Your task to perform on an android device: open a new tab in the chrome app Image 0: 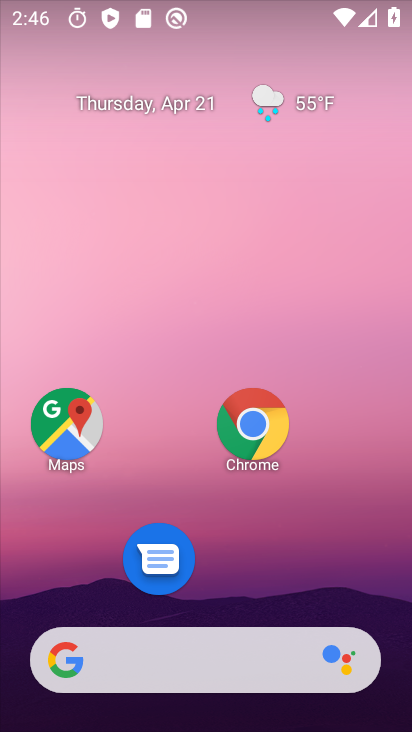
Step 0: drag from (266, 565) to (264, 78)
Your task to perform on an android device: open a new tab in the chrome app Image 1: 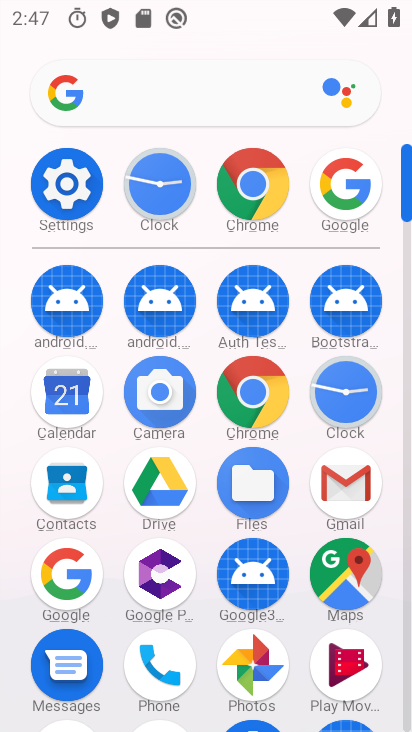
Step 1: click (252, 186)
Your task to perform on an android device: open a new tab in the chrome app Image 2: 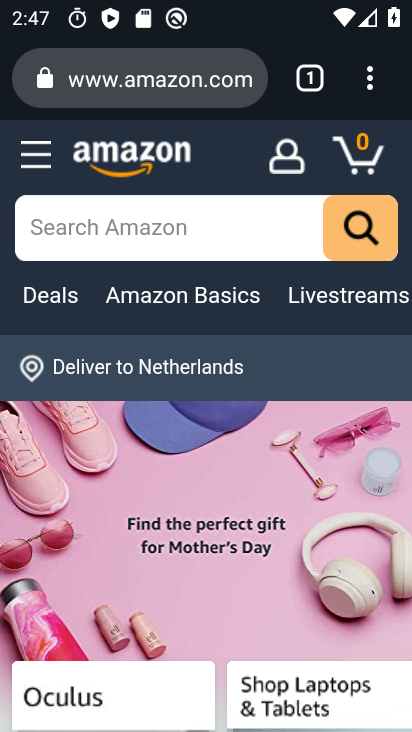
Step 2: click (311, 77)
Your task to perform on an android device: open a new tab in the chrome app Image 3: 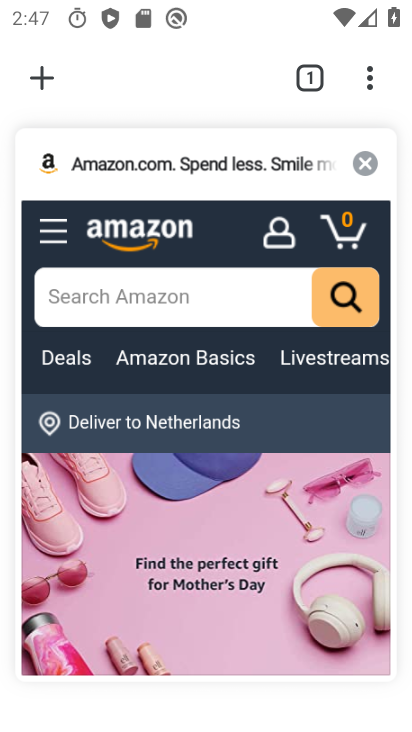
Step 3: click (50, 79)
Your task to perform on an android device: open a new tab in the chrome app Image 4: 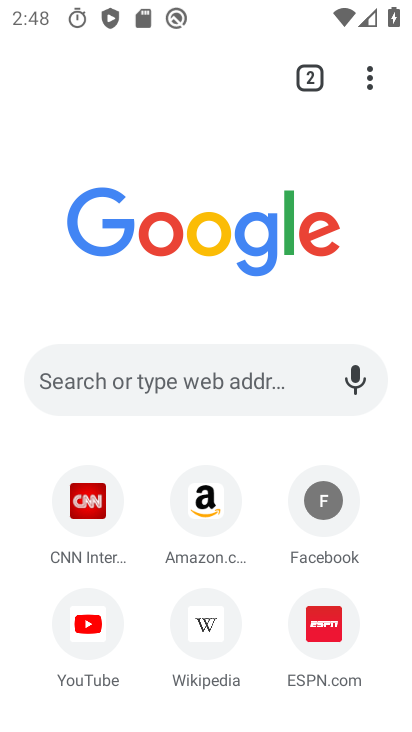
Step 4: task complete